Your task to perform on an android device: Open Chrome and go to settings Image 0: 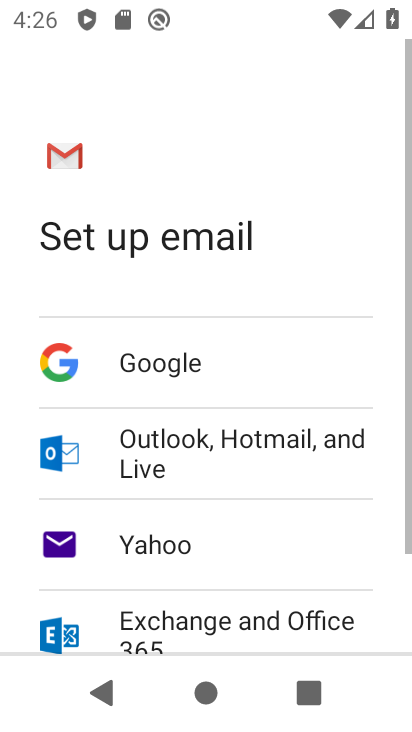
Step 0: press home button
Your task to perform on an android device: Open Chrome and go to settings Image 1: 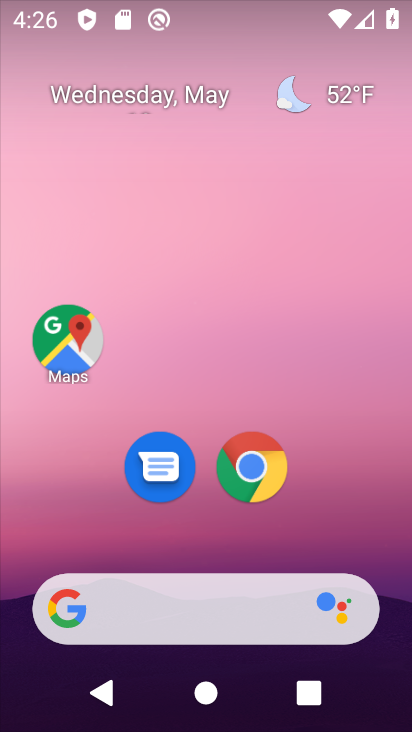
Step 1: click (239, 484)
Your task to perform on an android device: Open Chrome and go to settings Image 2: 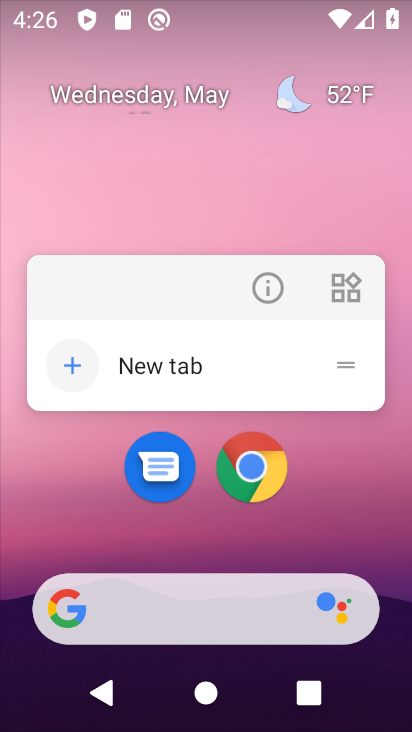
Step 2: click (258, 475)
Your task to perform on an android device: Open Chrome and go to settings Image 3: 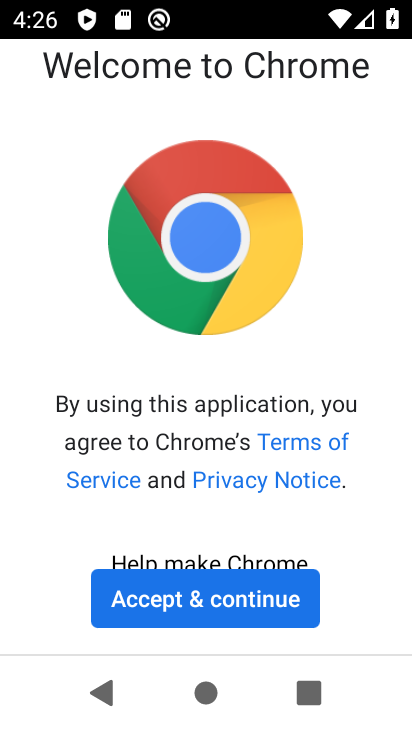
Step 3: click (224, 597)
Your task to perform on an android device: Open Chrome and go to settings Image 4: 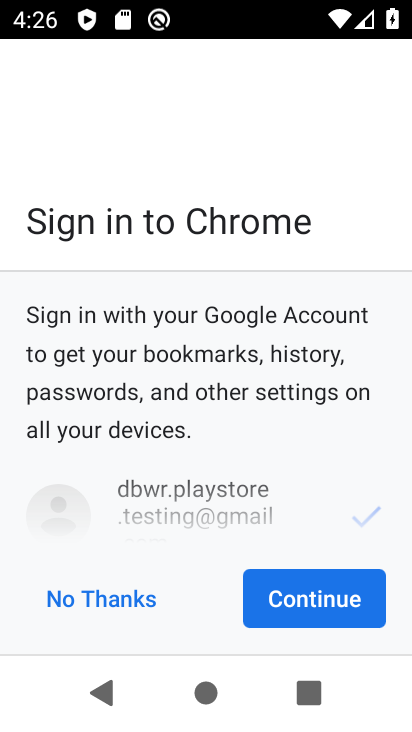
Step 4: click (320, 617)
Your task to perform on an android device: Open Chrome and go to settings Image 5: 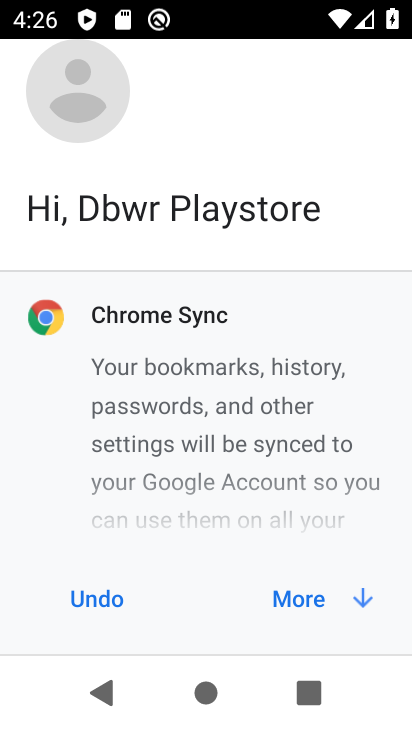
Step 5: click (309, 595)
Your task to perform on an android device: Open Chrome and go to settings Image 6: 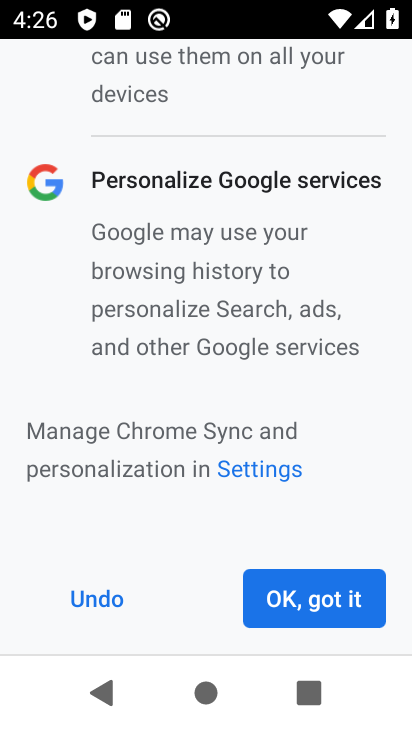
Step 6: click (309, 595)
Your task to perform on an android device: Open Chrome and go to settings Image 7: 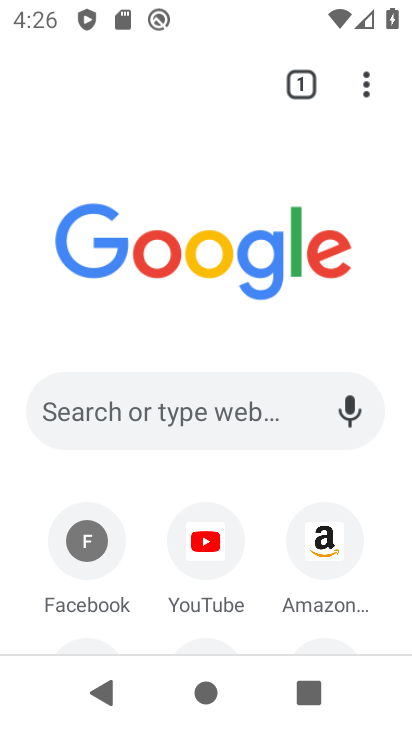
Step 7: click (369, 87)
Your task to perform on an android device: Open Chrome and go to settings Image 8: 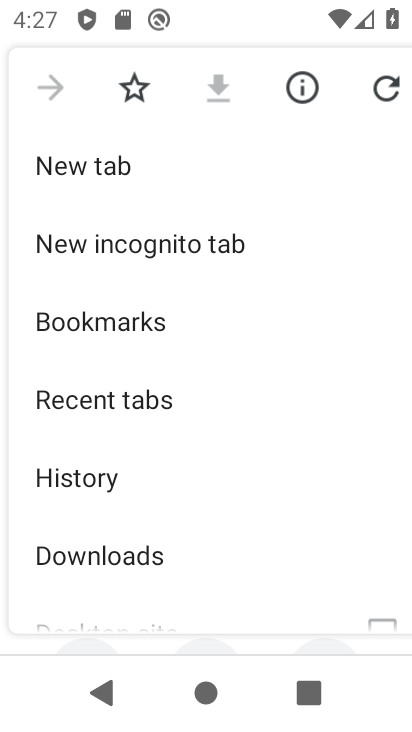
Step 8: drag from (141, 574) to (166, 283)
Your task to perform on an android device: Open Chrome and go to settings Image 9: 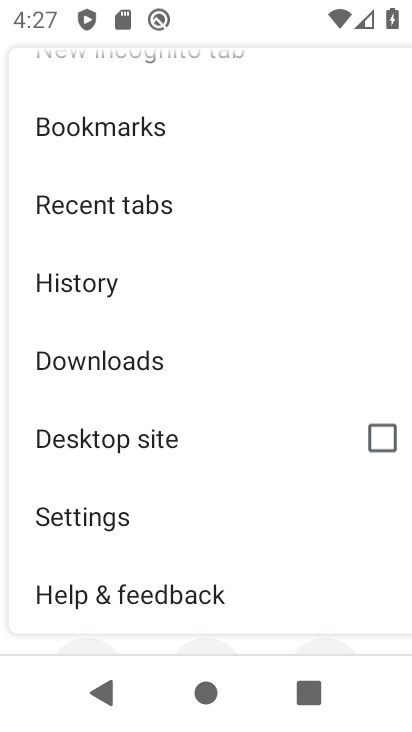
Step 9: drag from (144, 602) to (165, 309)
Your task to perform on an android device: Open Chrome and go to settings Image 10: 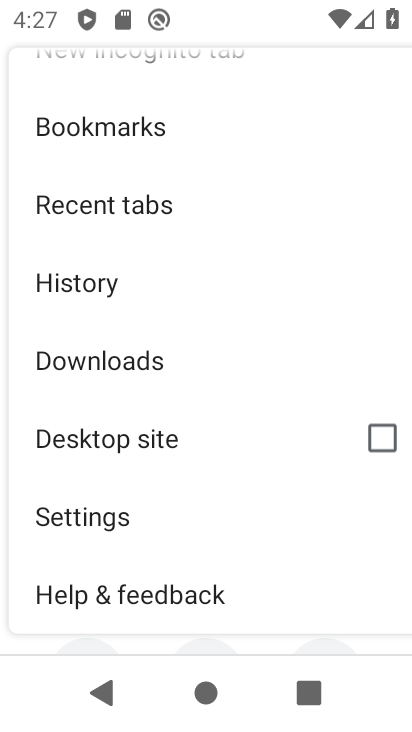
Step 10: click (97, 515)
Your task to perform on an android device: Open Chrome and go to settings Image 11: 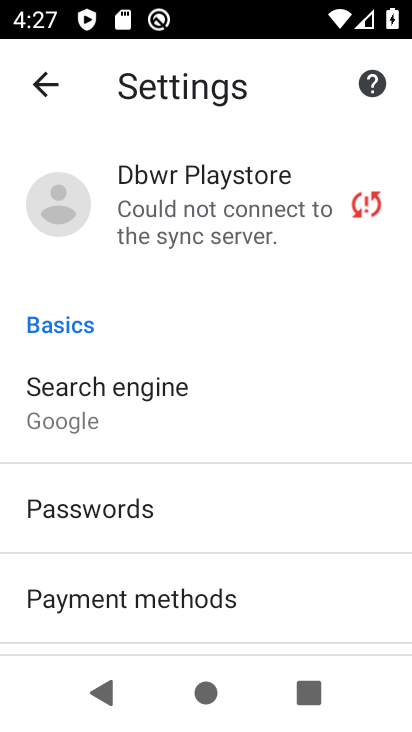
Step 11: task complete